Your task to perform on an android device: toggle javascript in the chrome app Image 0: 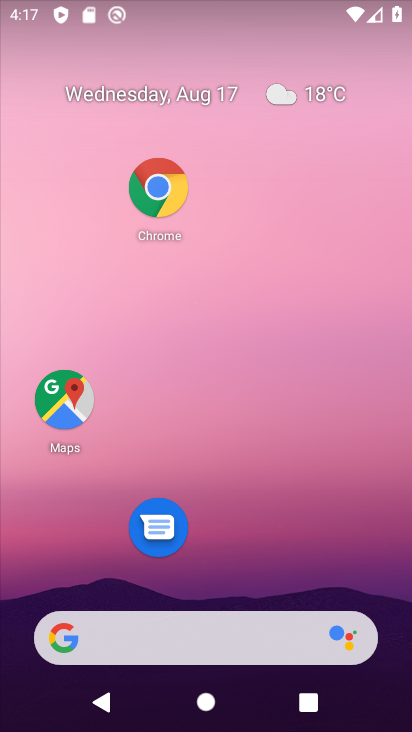
Step 0: click (157, 190)
Your task to perform on an android device: toggle javascript in the chrome app Image 1: 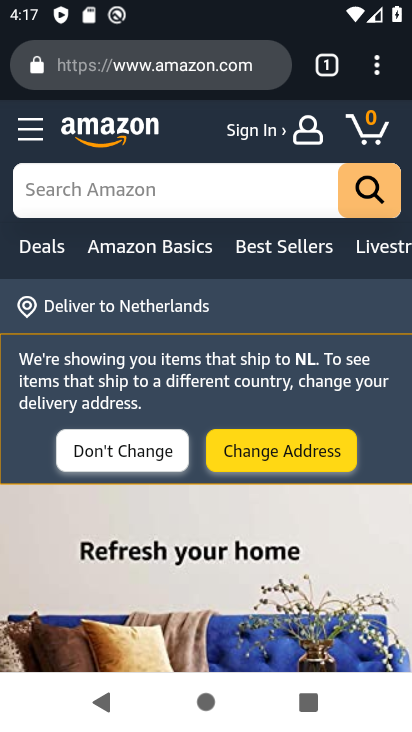
Step 1: click (394, 58)
Your task to perform on an android device: toggle javascript in the chrome app Image 2: 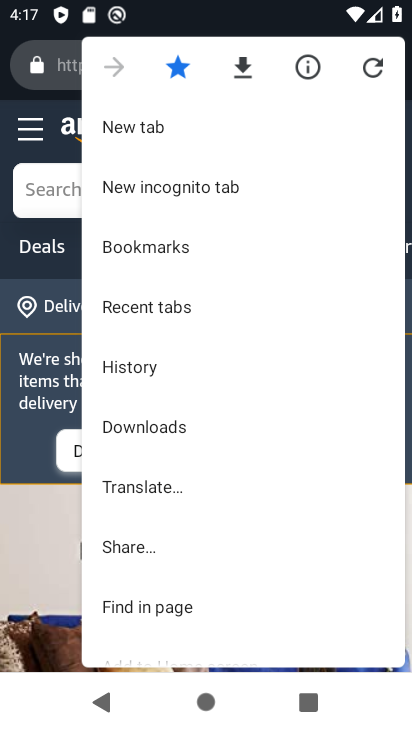
Step 2: drag from (126, 586) to (170, 198)
Your task to perform on an android device: toggle javascript in the chrome app Image 3: 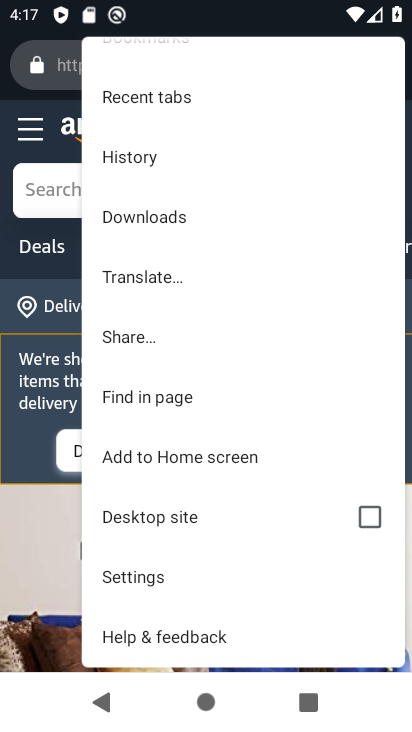
Step 3: click (166, 573)
Your task to perform on an android device: toggle javascript in the chrome app Image 4: 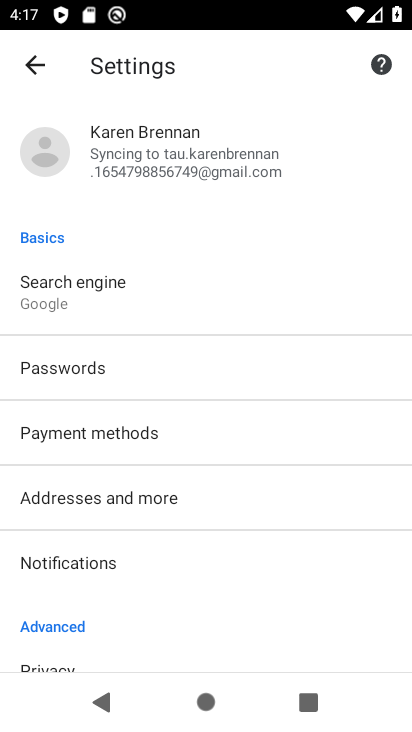
Step 4: drag from (40, 652) to (174, 149)
Your task to perform on an android device: toggle javascript in the chrome app Image 5: 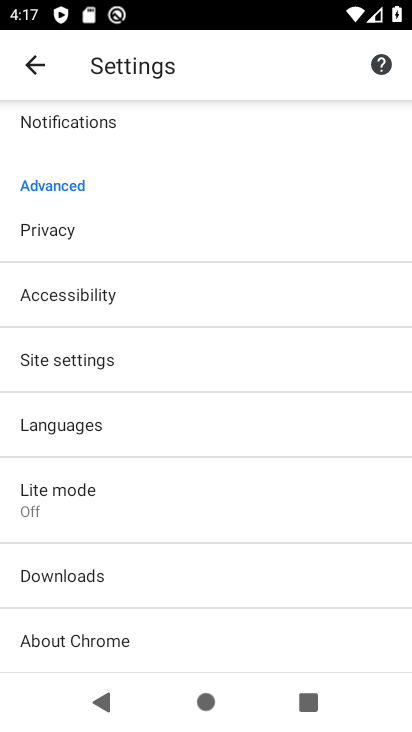
Step 5: click (92, 375)
Your task to perform on an android device: toggle javascript in the chrome app Image 6: 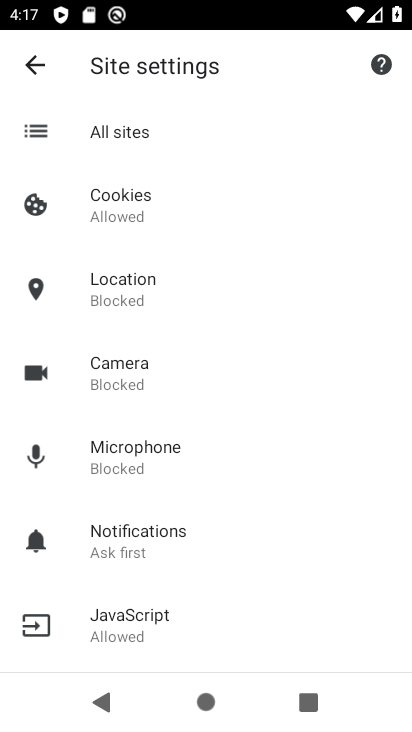
Step 6: click (129, 640)
Your task to perform on an android device: toggle javascript in the chrome app Image 7: 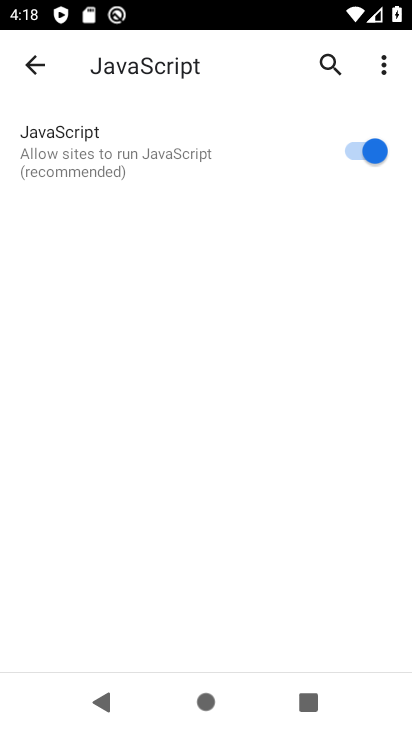
Step 7: click (379, 164)
Your task to perform on an android device: toggle javascript in the chrome app Image 8: 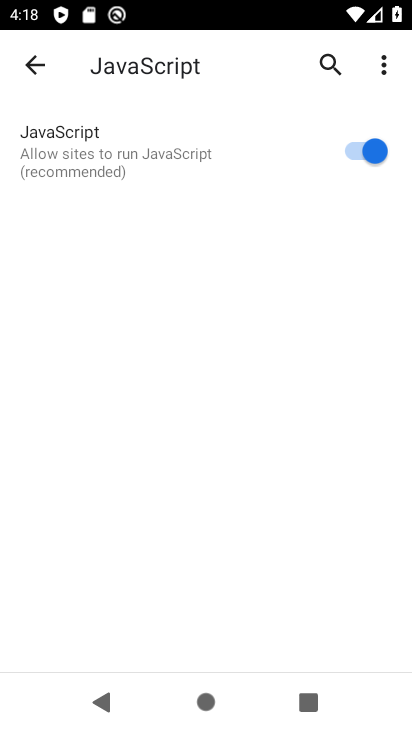
Step 8: click (379, 164)
Your task to perform on an android device: toggle javascript in the chrome app Image 9: 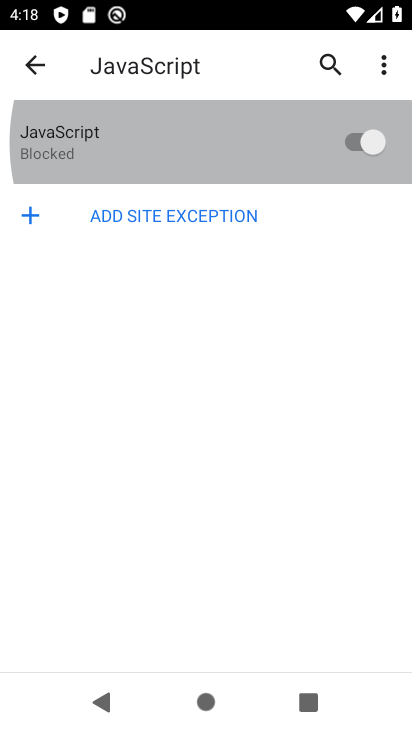
Step 9: click (379, 164)
Your task to perform on an android device: toggle javascript in the chrome app Image 10: 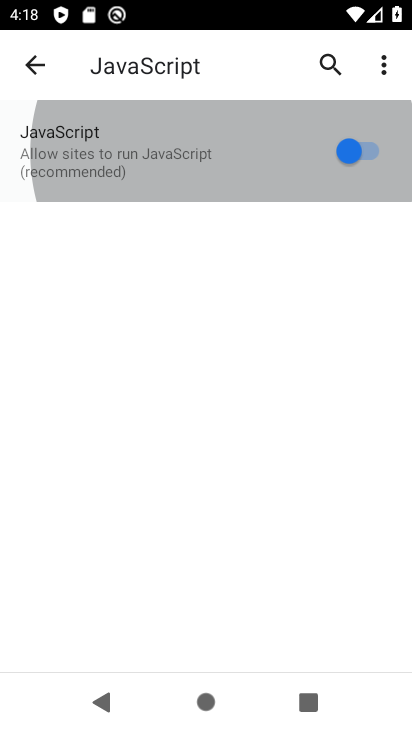
Step 10: click (379, 164)
Your task to perform on an android device: toggle javascript in the chrome app Image 11: 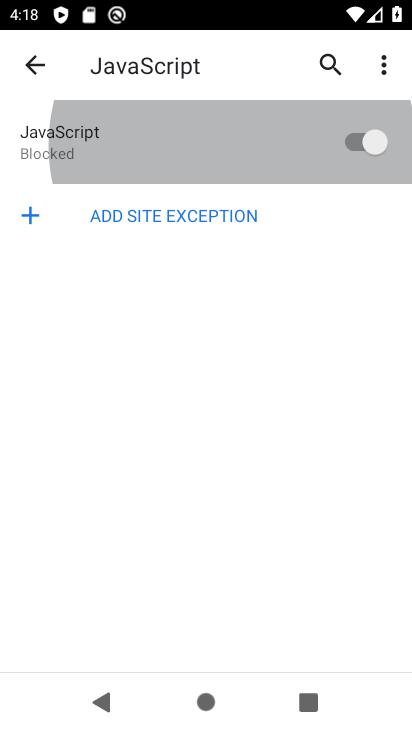
Step 11: click (379, 164)
Your task to perform on an android device: toggle javascript in the chrome app Image 12: 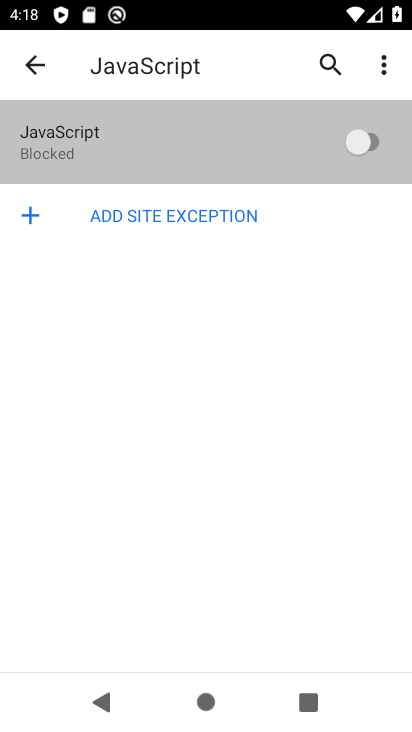
Step 12: click (379, 164)
Your task to perform on an android device: toggle javascript in the chrome app Image 13: 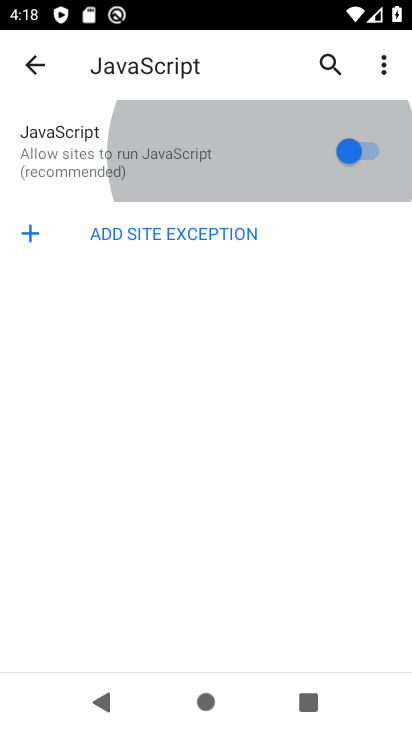
Step 13: click (379, 164)
Your task to perform on an android device: toggle javascript in the chrome app Image 14: 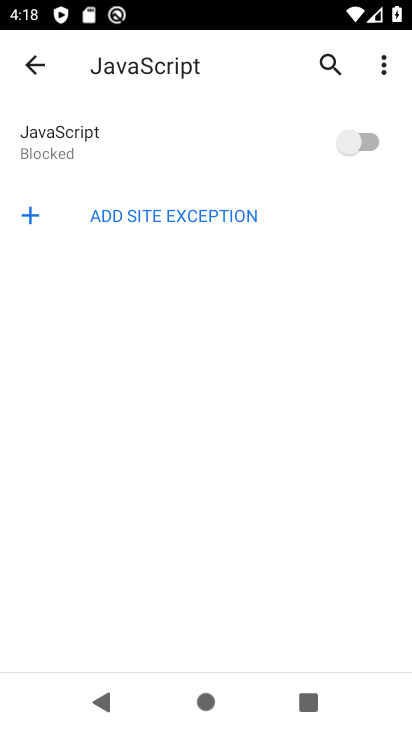
Step 14: task complete